Your task to perform on an android device: Play the last video I watched on Youtube Image 0: 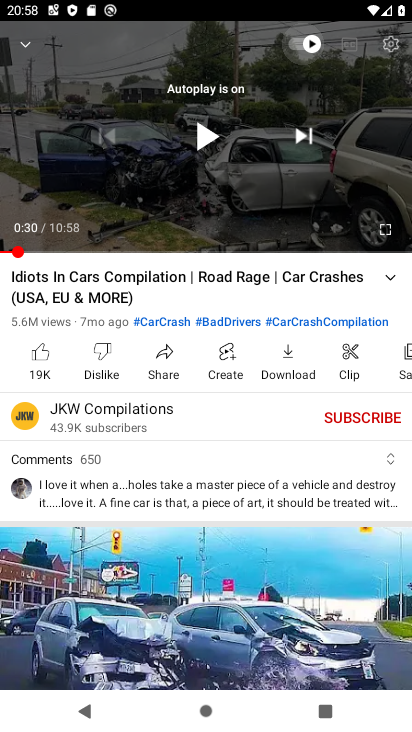
Step 0: press home button
Your task to perform on an android device: Play the last video I watched on Youtube Image 1: 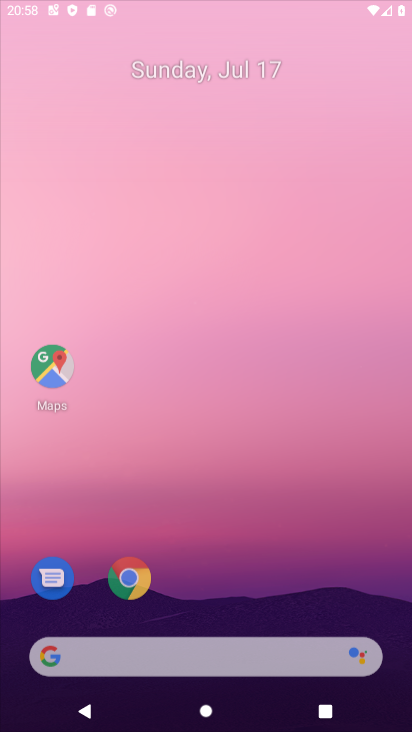
Step 1: drag from (246, 546) to (234, 101)
Your task to perform on an android device: Play the last video I watched on Youtube Image 2: 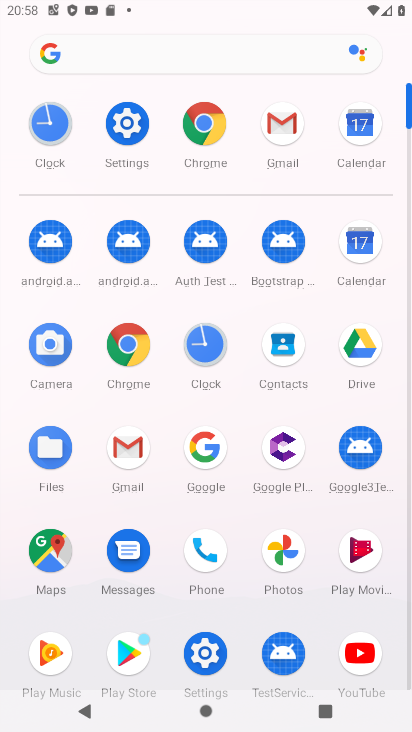
Step 2: click (348, 660)
Your task to perform on an android device: Play the last video I watched on Youtube Image 3: 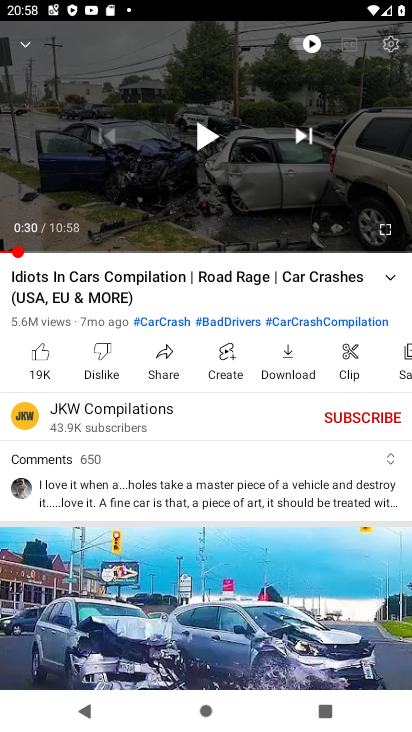
Step 3: drag from (19, 33) to (53, 727)
Your task to perform on an android device: Play the last video I watched on Youtube Image 4: 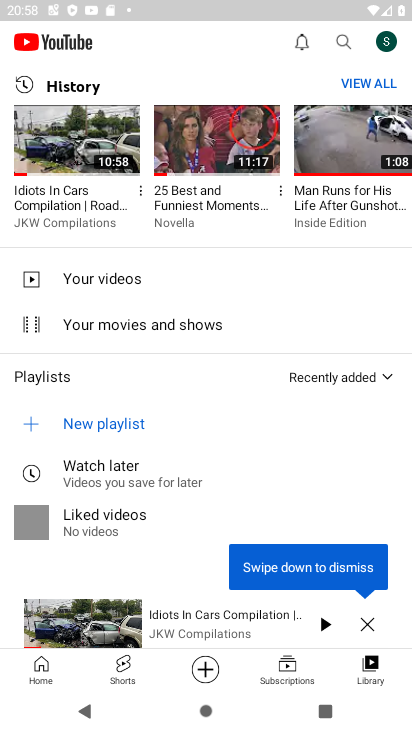
Step 4: click (39, 152)
Your task to perform on an android device: Play the last video I watched on Youtube Image 5: 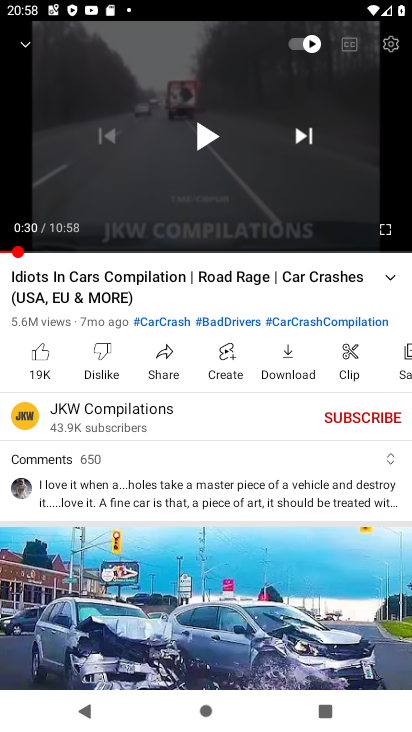
Step 5: click (201, 161)
Your task to perform on an android device: Play the last video I watched on Youtube Image 6: 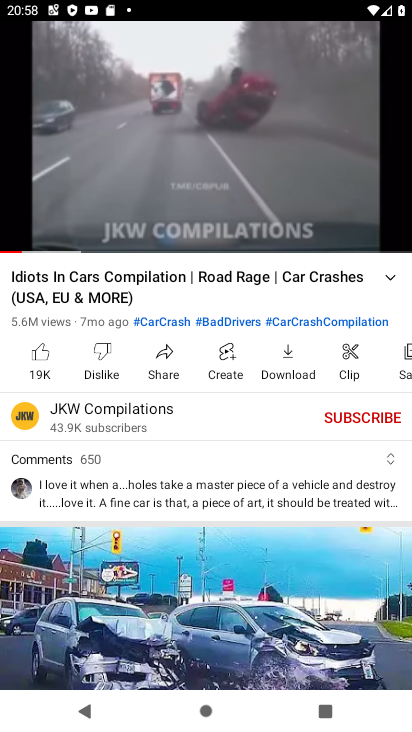
Step 6: task complete